Your task to perform on an android device: Go to CNN.com Image 0: 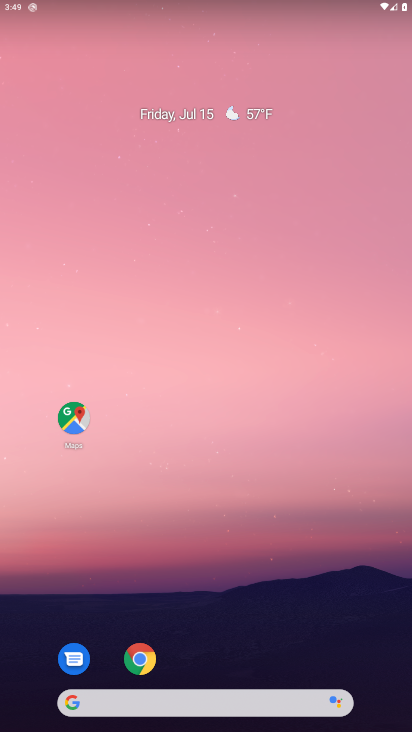
Step 0: click (151, 697)
Your task to perform on an android device: Go to CNN.com Image 1: 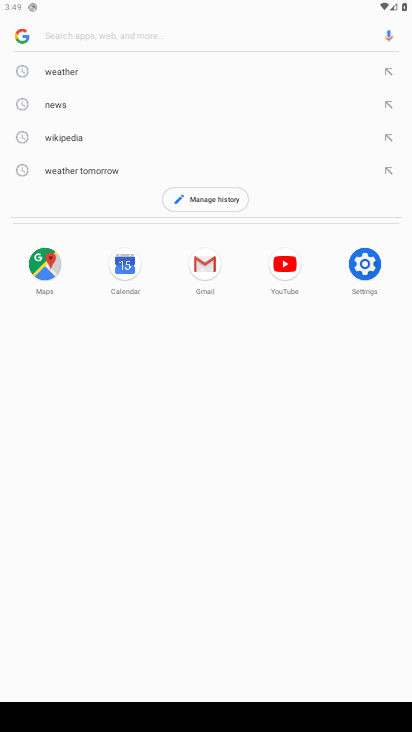
Step 1: type "CNN.com"
Your task to perform on an android device: Go to CNN.com Image 2: 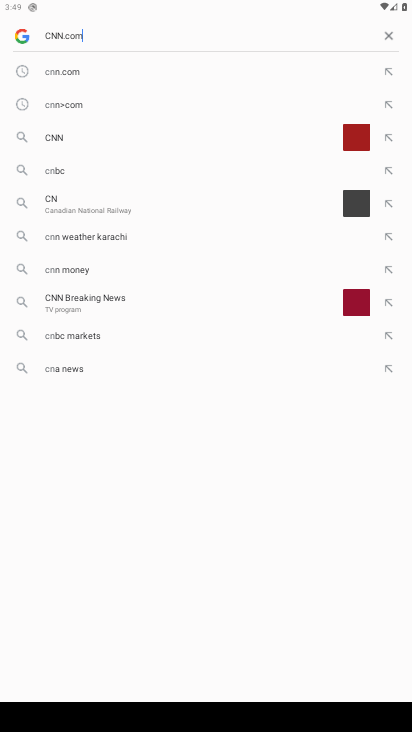
Step 2: type ""
Your task to perform on an android device: Go to CNN.com Image 3: 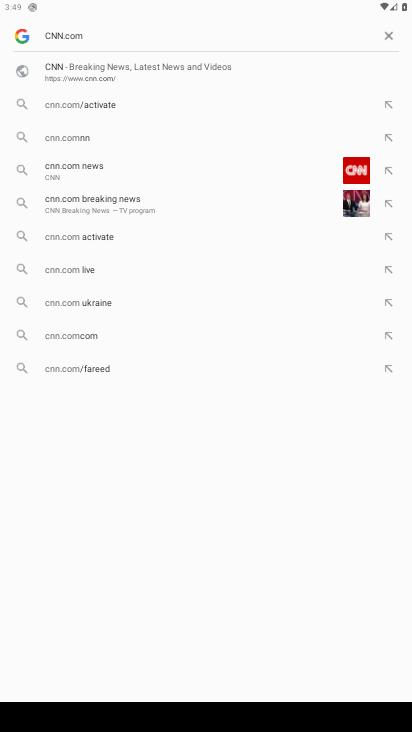
Step 3: click (49, 76)
Your task to perform on an android device: Go to CNN.com Image 4: 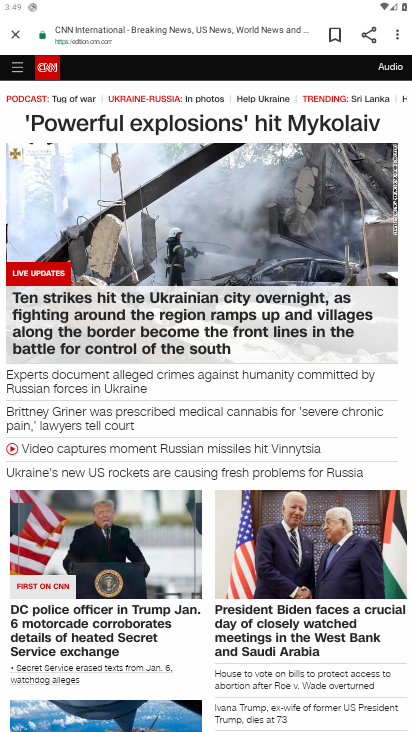
Step 4: task complete